Your task to perform on an android device: Open Google Image 0: 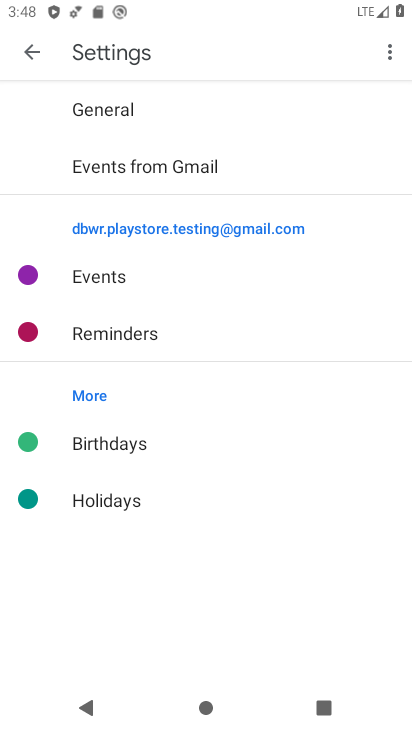
Step 0: press back button
Your task to perform on an android device: Open Google Image 1: 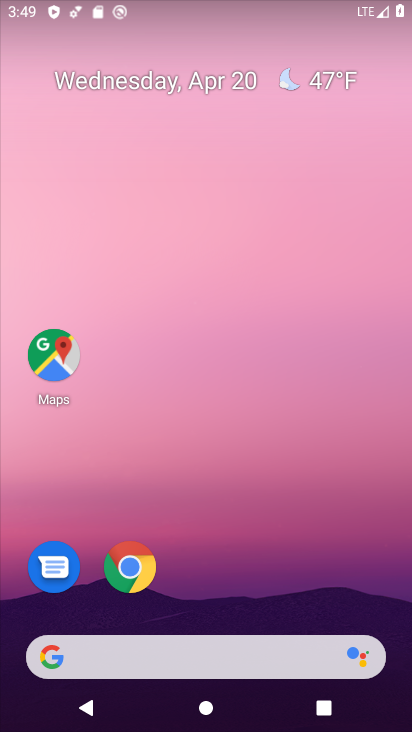
Step 1: drag from (298, 458) to (241, 3)
Your task to perform on an android device: Open Google Image 2: 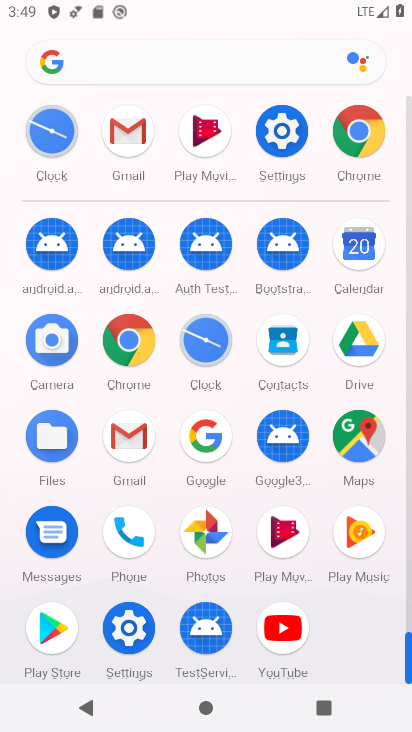
Step 2: click (133, 346)
Your task to perform on an android device: Open Google Image 3: 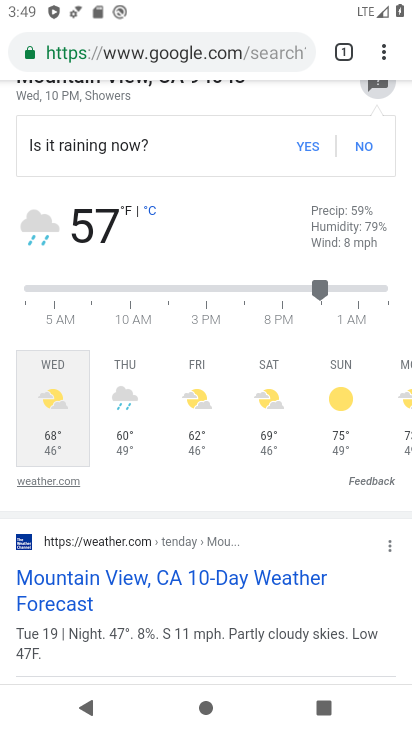
Step 3: click (164, 47)
Your task to perform on an android device: Open Google Image 4: 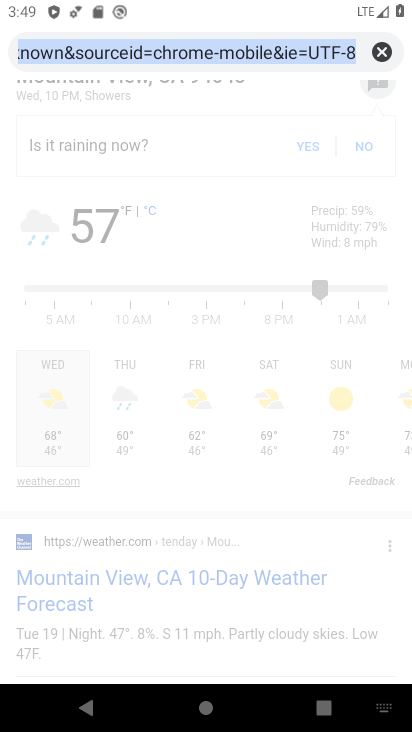
Step 4: task complete